Your task to perform on an android device: turn off wifi Image 0: 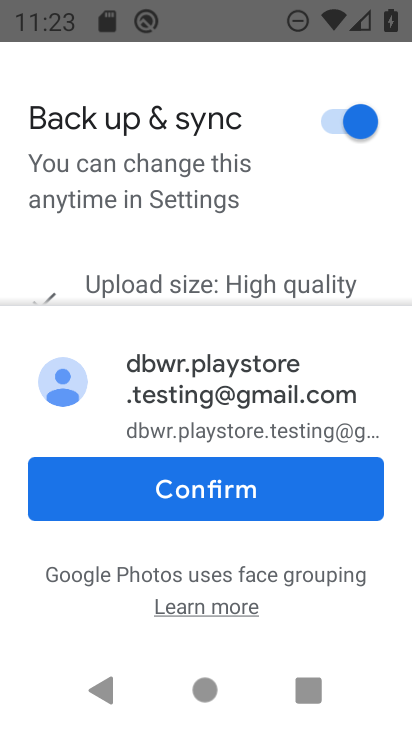
Step 0: press home button
Your task to perform on an android device: turn off wifi Image 1: 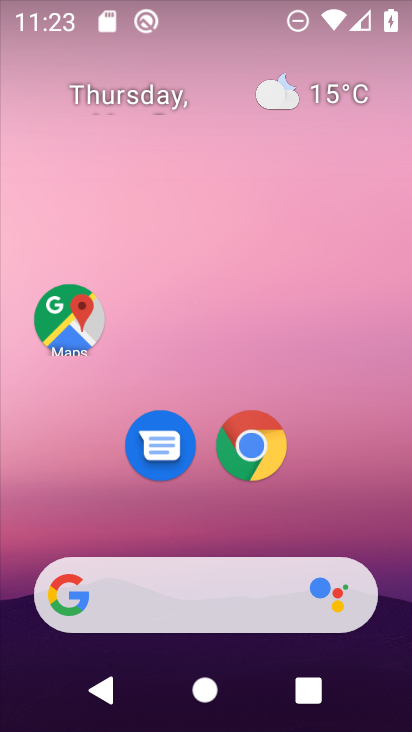
Step 1: drag from (320, 544) to (261, 40)
Your task to perform on an android device: turn off wifi Image 2: 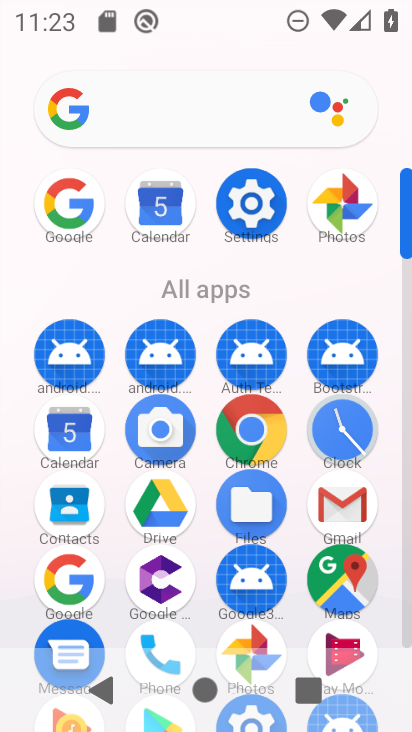
Step 2: click (252, 210)
Your task to perform on an android device: turn off wifi Image 3: 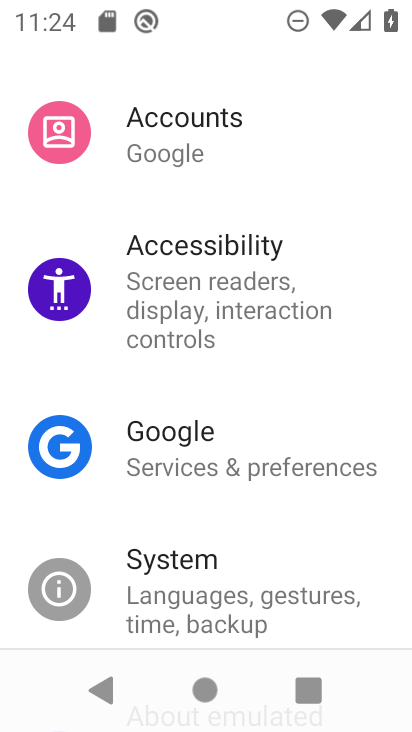
Step 3: drag from (301, 168) to (203, 686)
Your task to perform on an android device: turn off wifi Image 4: 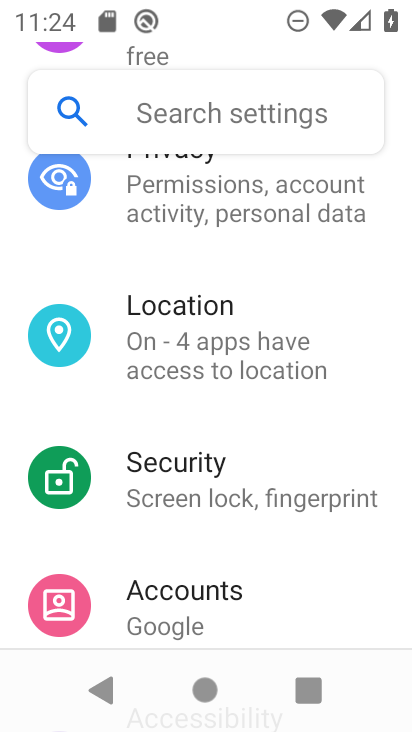
Step 4: drag from (226, 235) to (155, 723)
Your task to perform on an android device: turn off wifi Image 5: 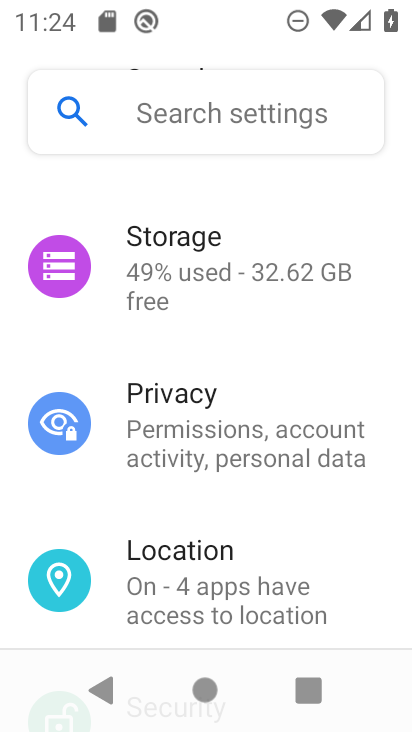
Step 5: drag from (233, 232) to (92, 720)
Your task to perform on an android device: turn off wifi Image 6: 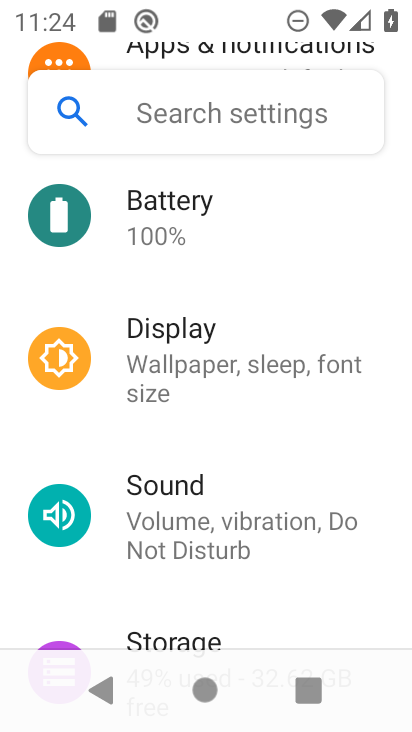
Step 6: drag from (217, 306) to (162, 711)
Your task to perform on an android device: turn off wifi Image 7: 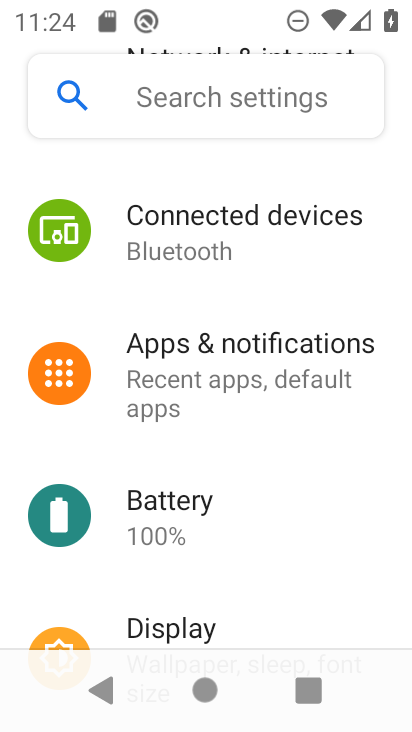
Step 7: drag from (240, 280) to (178, 720)
Your task to perform on an android device: turn off wifi Image 8: 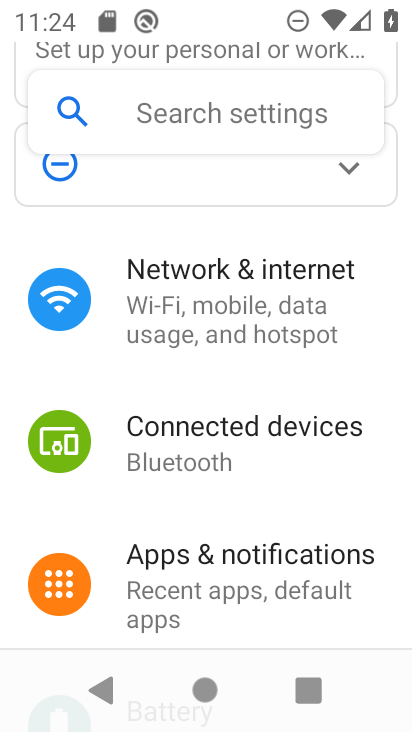
Step 8: click (183, 271)
Your task to perform on an android device: turn off wifi Image 9: 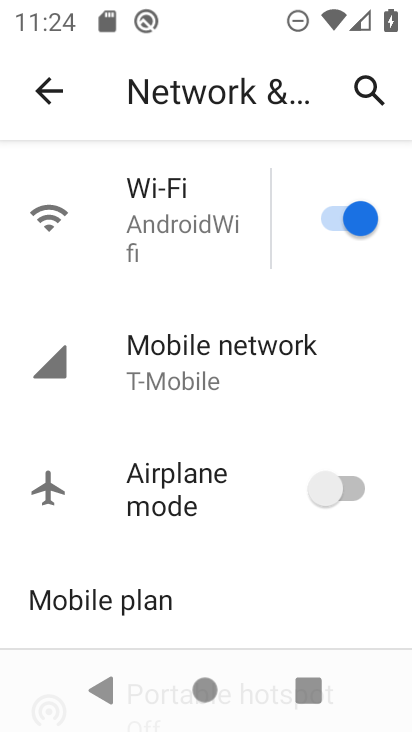
Step 9: task complete